Your task to perform on an android device: Show me the alarms in the clock app Image 0: 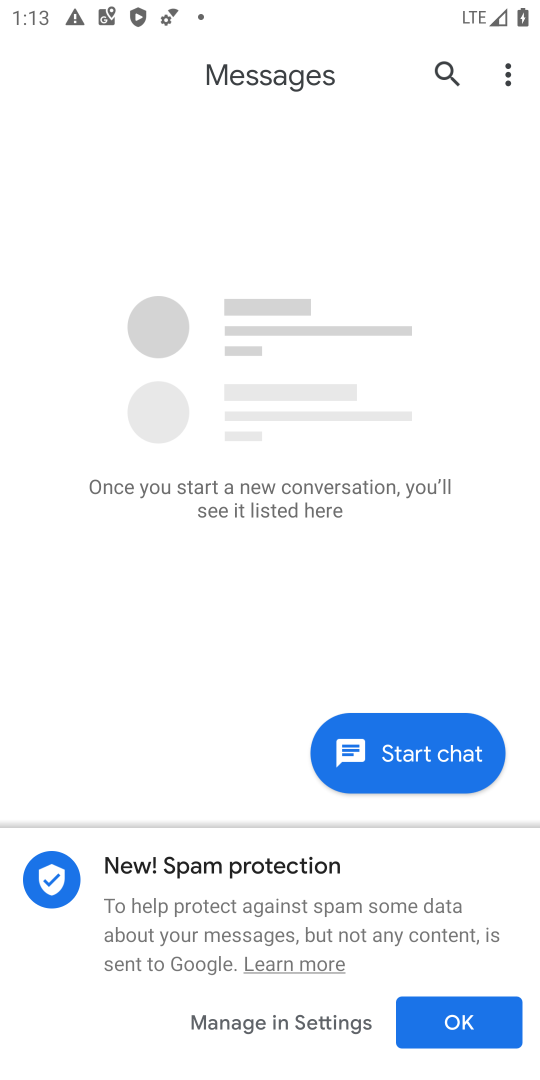
Step 0: press home button
Your task to perform on an android device: Show me the alarms in the clock app Image 1: 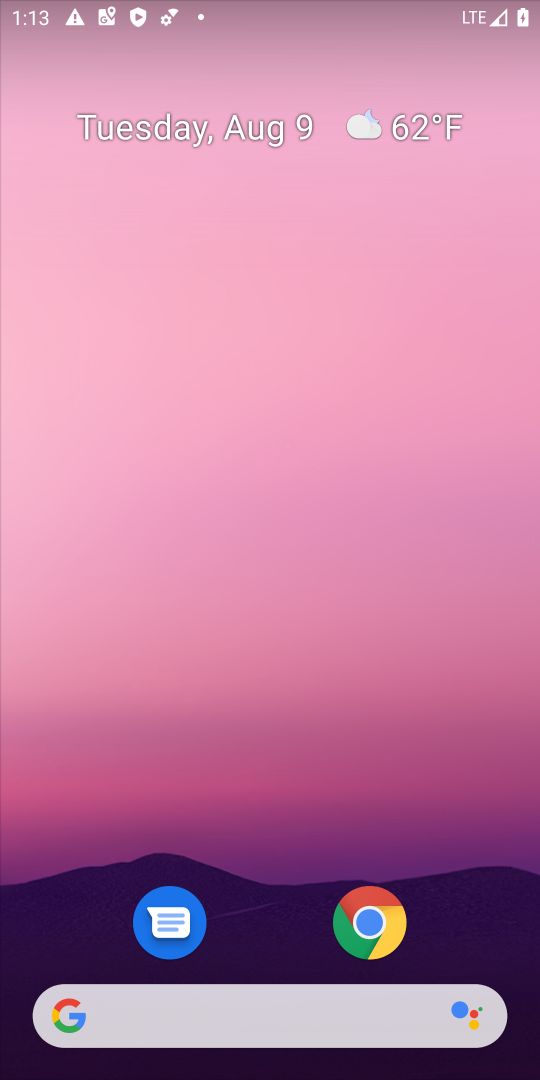
Step 1: drag from (270, 954) to (118, 71)
Your task to perform on an android device: Show me the alarms in the clock app Image 2: 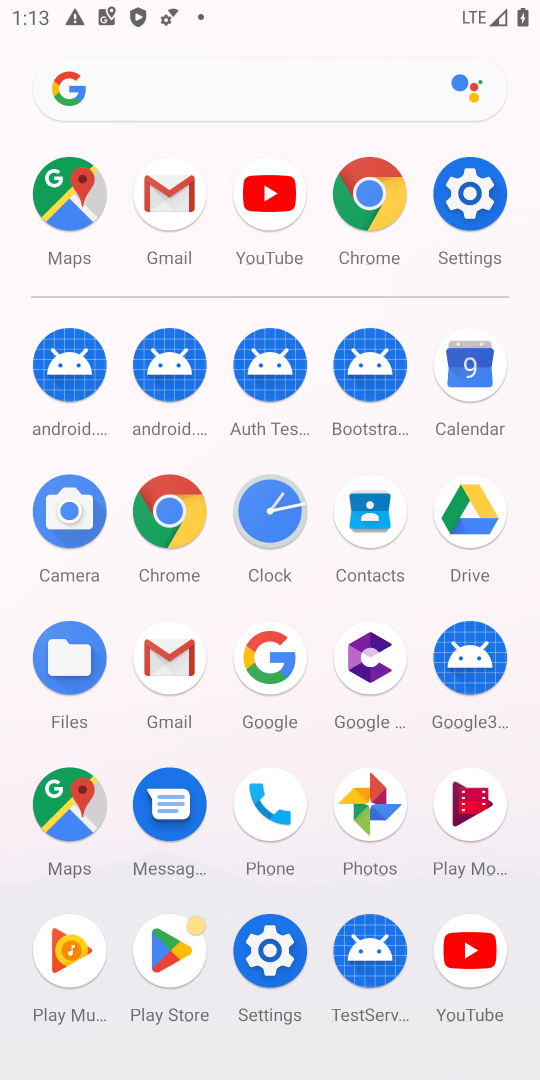
Step 2: click (242, 511)
Your task to perform on an android device: Show me the alarms in the clock app Image 3: 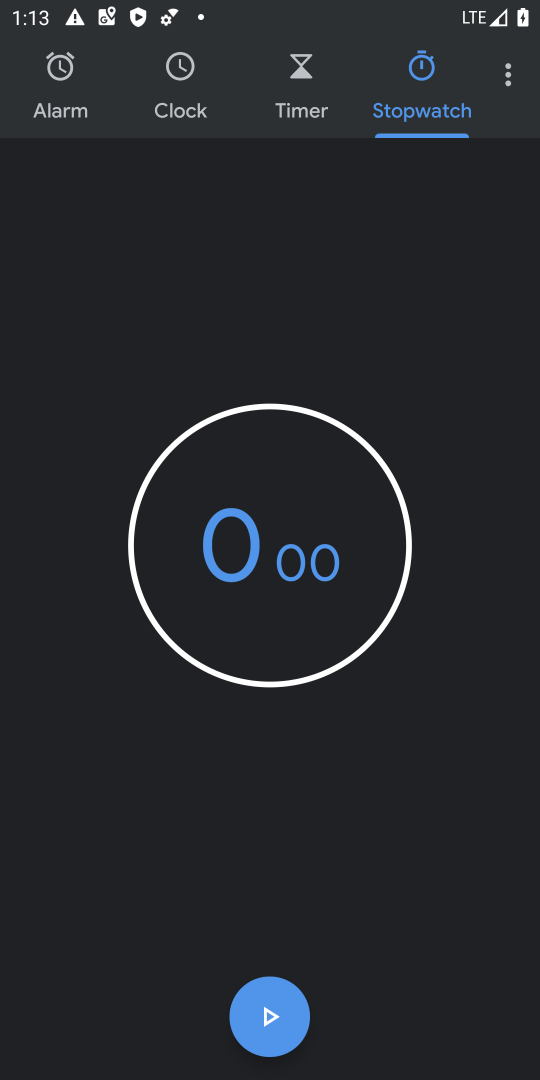
Step 3: click (63, 66)
Your task to perform on an android device: Show me the alarms in the clock app Image 4: 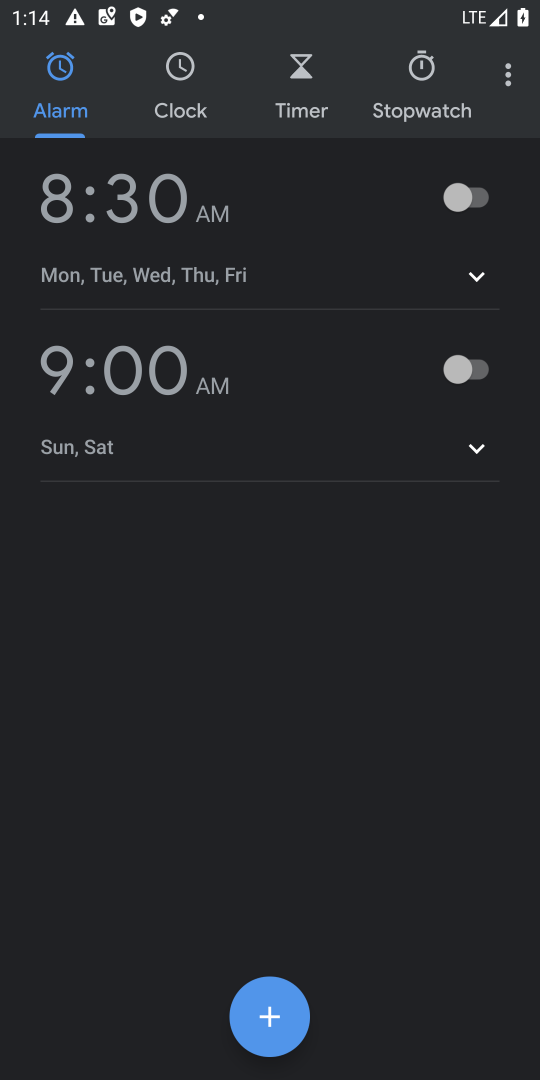
Step 4: task complete